Your task to perform on an android device: Go to battery settings Image 0: 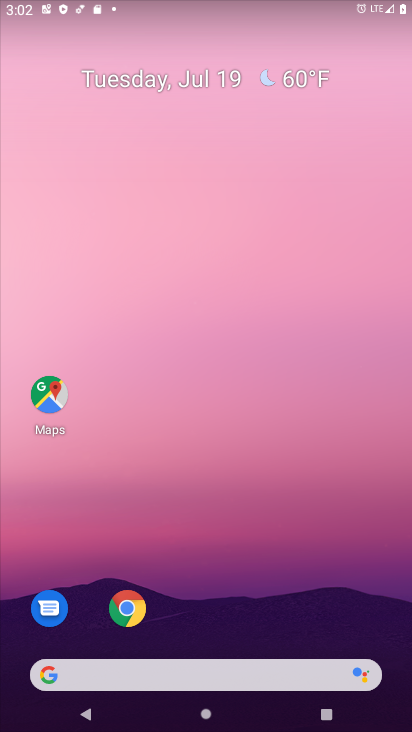
Step 0: drag from (280, 496) to (134, 5)
Your task to perform on an android device: Go to battery settings Image 1: 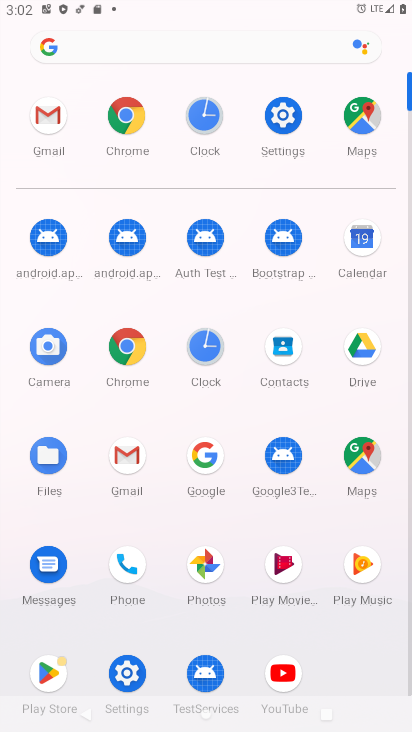
Step 1: click (284, 113)
Your task to perform on an android device: Go to battery settings Image 2: 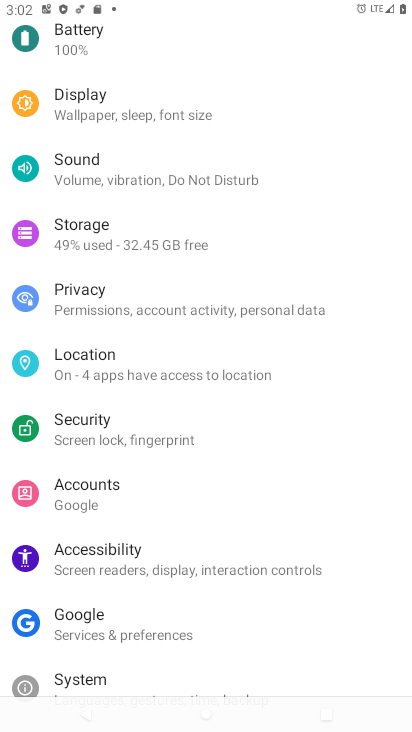
Step 2: drag from (195, 131) to (215, 579)
Your task to perform on an android device: Go to battery settings Image 3: 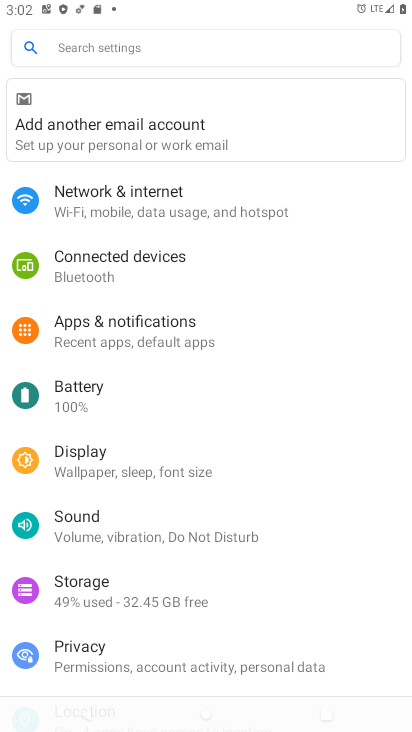
Step 3: click (86, 399)
Your task to perform on an android device: Go to battery settings Image 4: 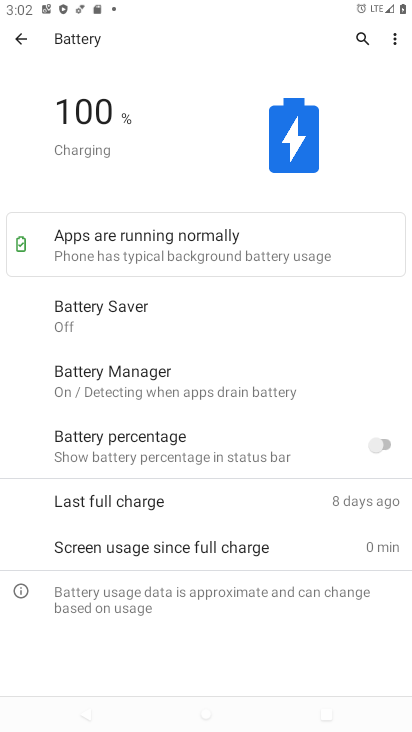
Step 4: task complete